Your task to perform on an android device: open sync settings in chrome Image 0: 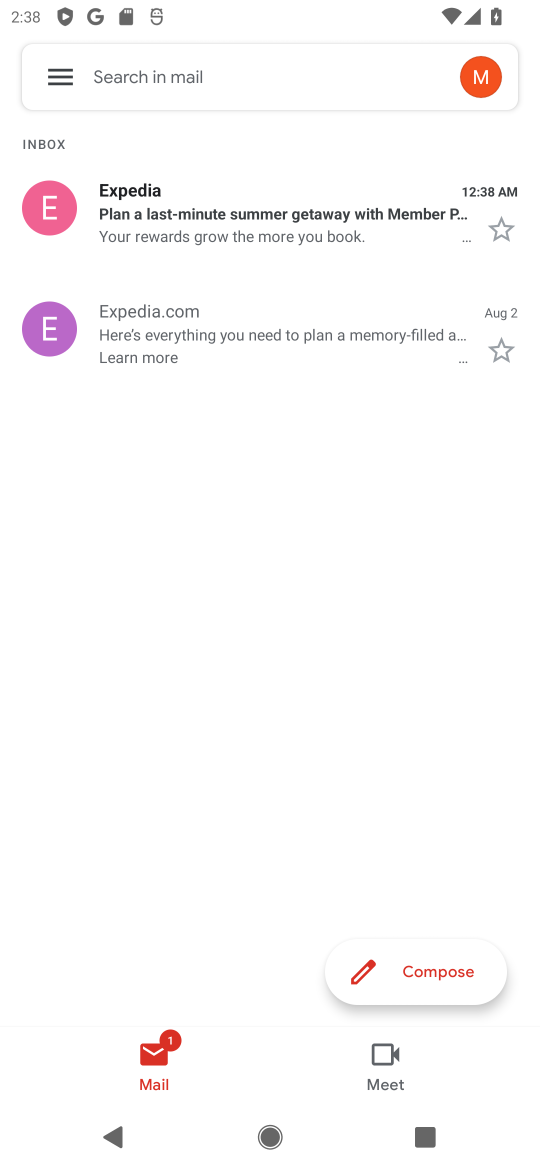
Step 0: press home button
Your task to perform on an android device: open sync settings in chrome Image 1: 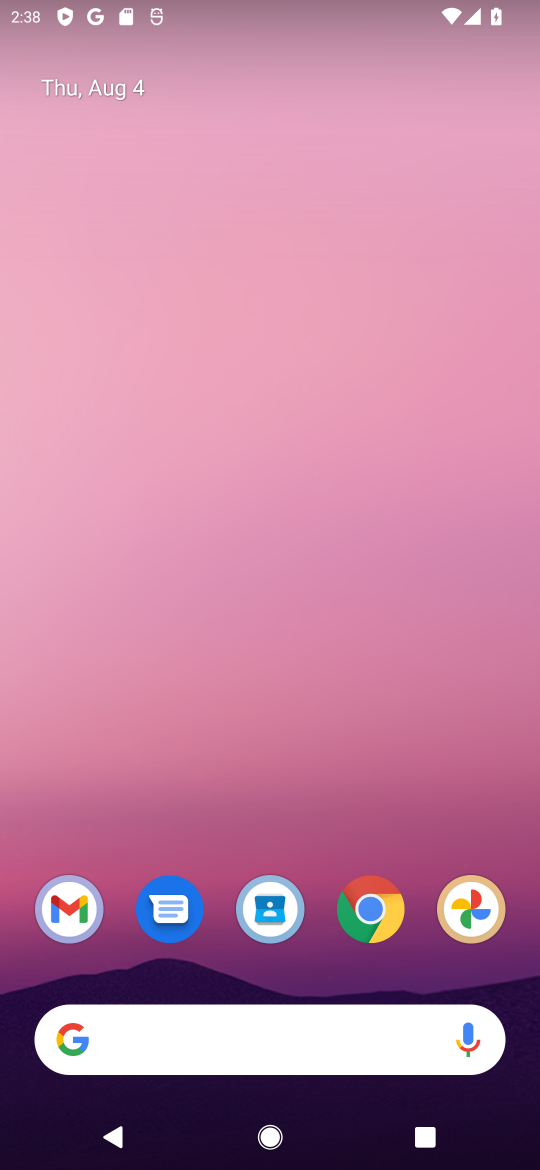
Step 1: click (370, 905)
Your task to perform on an android device: open sync settings in chrome Image 2: 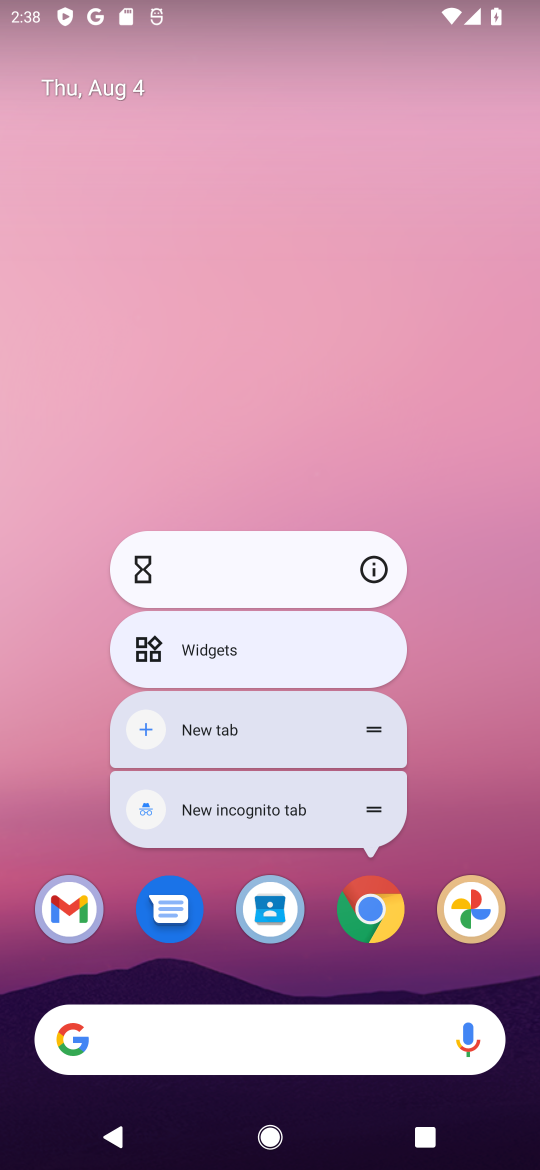
Step 2: click (370, 905)
Your task to perform on an android device: open sync settings in chrome Image 3: 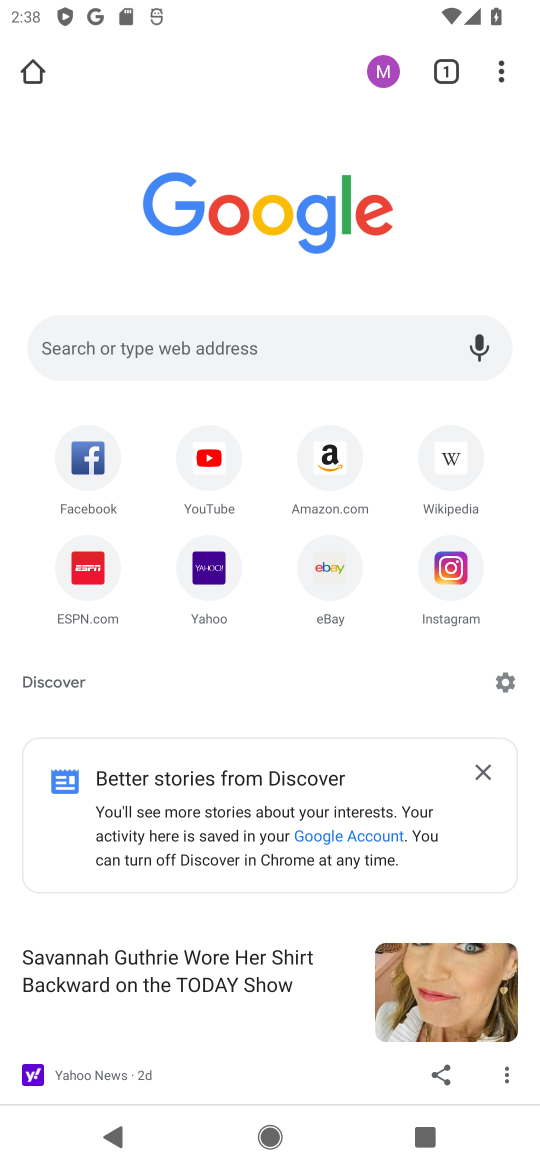
Step 3: drag from (503, 70) to (308, 649)
Your task to perform on an android device: open sync settings in chrome Image 4: 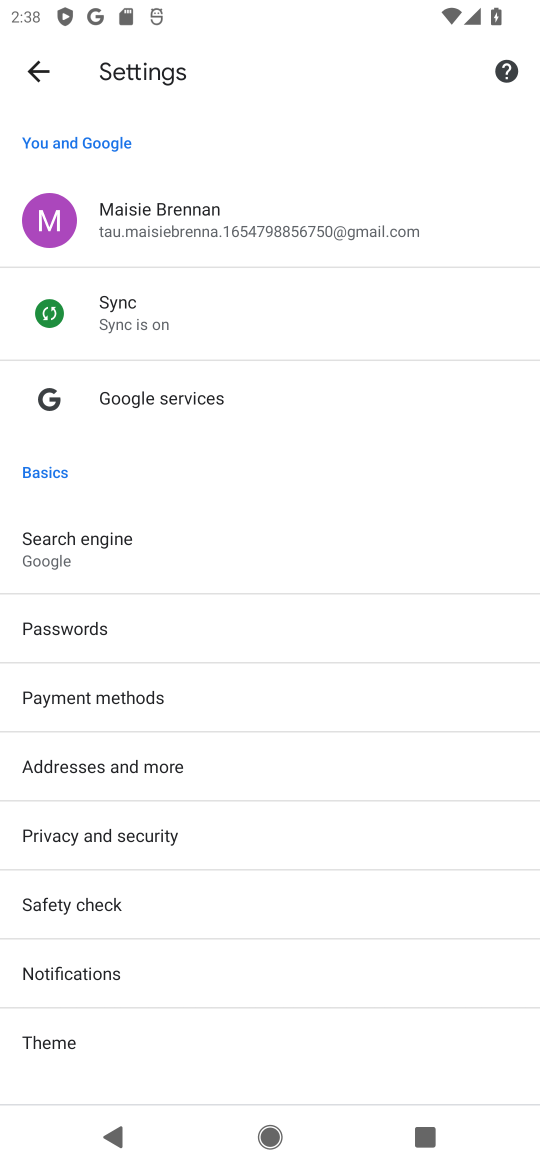
Step 4: click (204, 293)
Your task to perform on an android device: open sync settings in chrome Image 5: 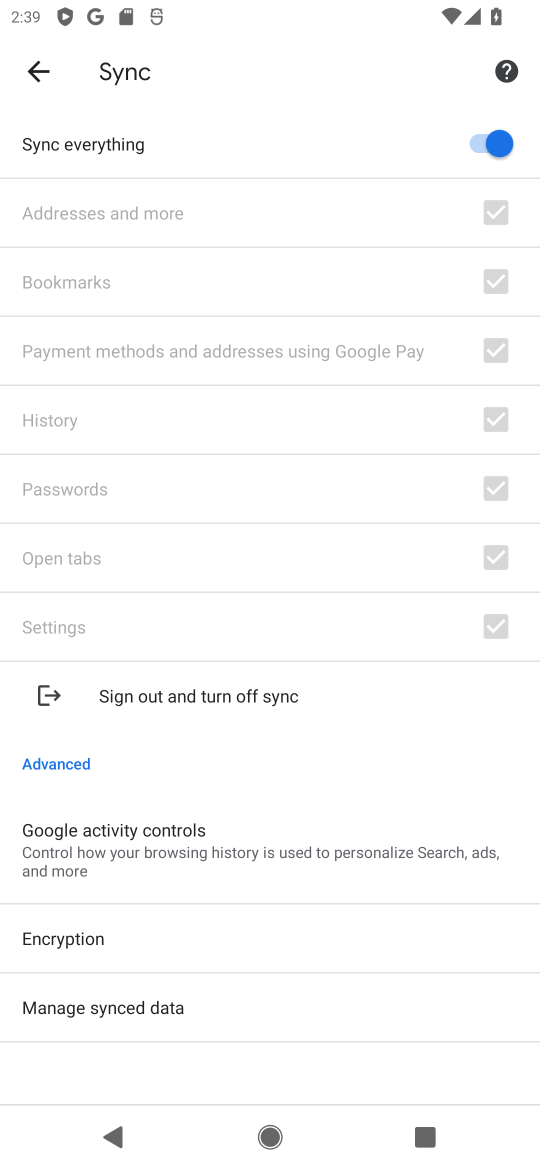
Step 5: task complete